Your task to perform on an android device: turn on airplane mode Image 0: 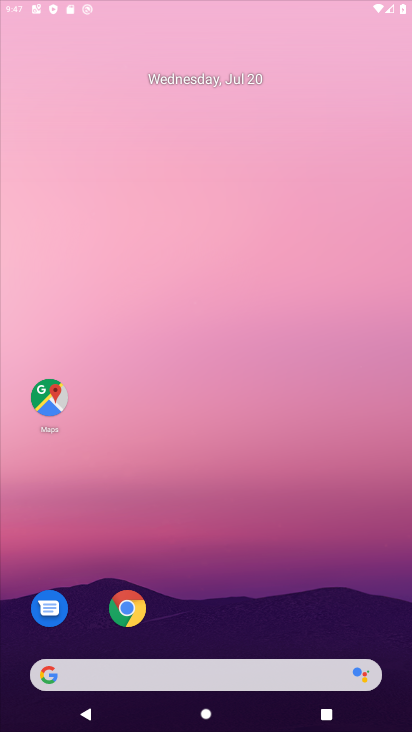
Step 0: click (239, 391)
Your task to perform on an android device: turn on airplane mode Image 1: 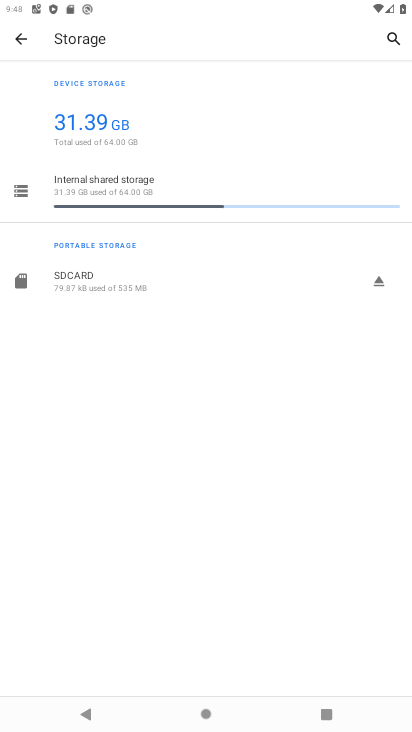
Step 1: press home button
Your task to perform on an android device: turn on airplane mode Image 2: 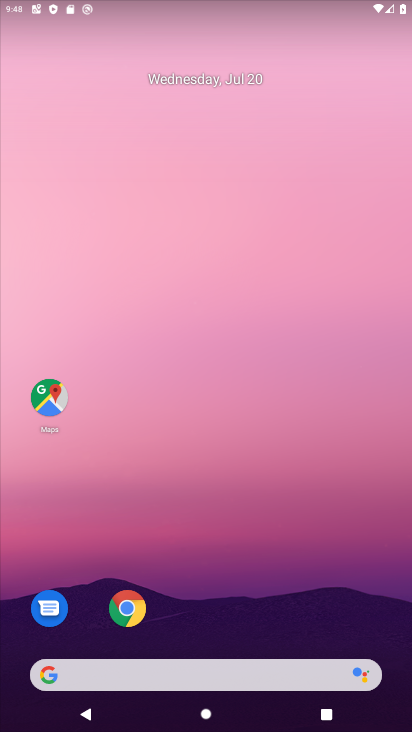
Step 2: drag from (175, 665) to (274, 12)
Your task to perform on an android device: turn on airplane mode Image 3: 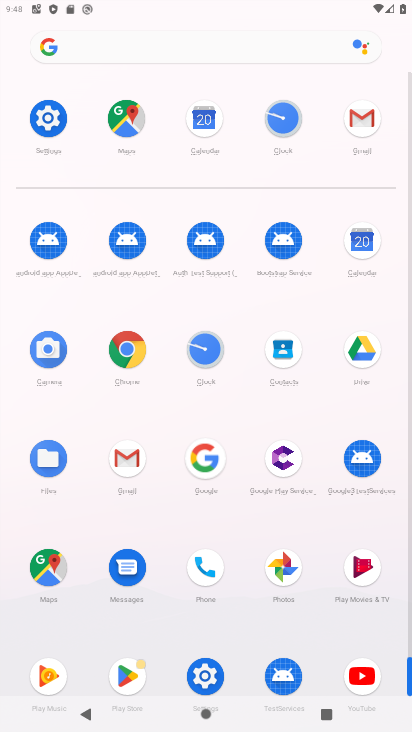
Step 3: click (50, 115)
Your task to perform on an android device: turn on airplane mode Image 4: 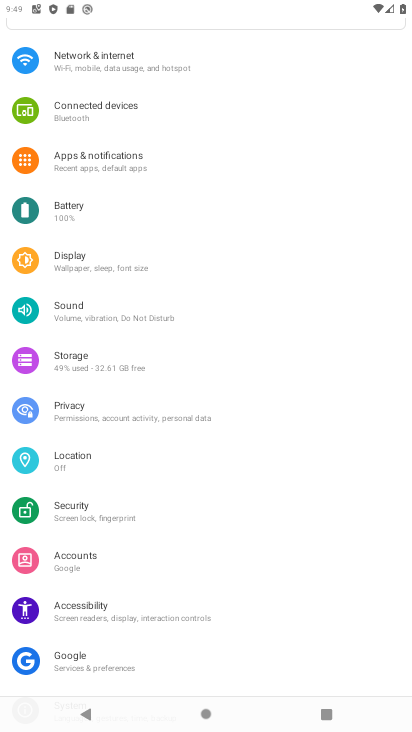
Step 4: click (119, 75)
Your task to perform on an android device: turn on airplane mode Image 5: 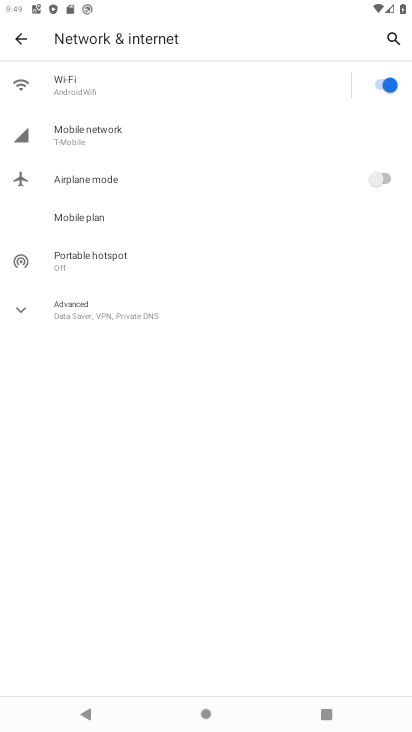
Step 5: click (383, 179)
Your task to perform on an android device: turn on airplane mode Image 6: 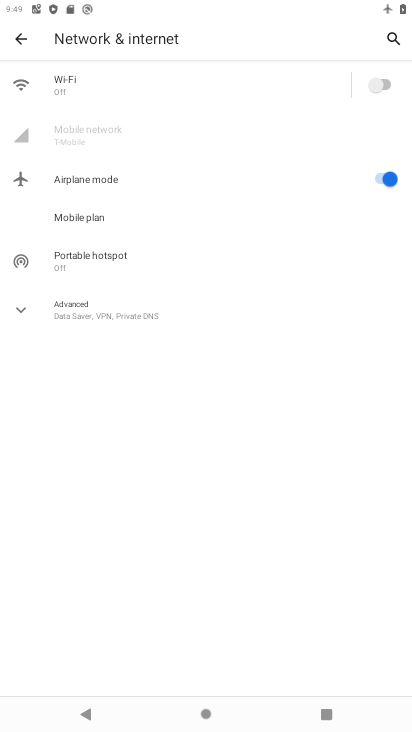
Step 6: task complete